Your task to perform on an android device: Check the news Image 0: 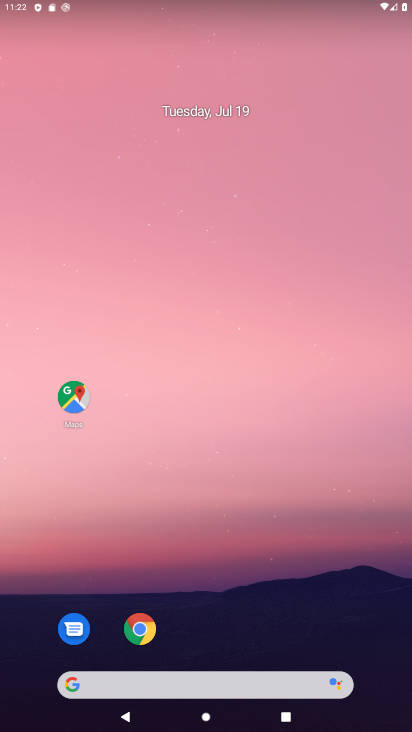
Step 0: drag from (269, 641) to (286, 10)
Your task to perform on an android device: Check the news Image 1: 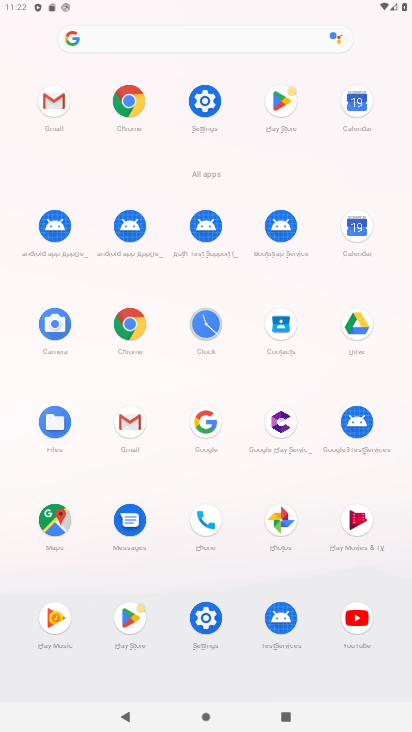
Step 1: click (135, 94)
Your task to perform on an android device: Check the news Image 2: 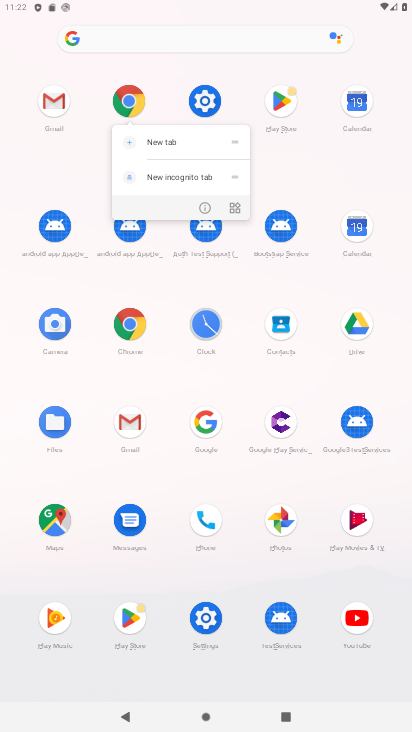
Step 2: click (135, 93)
Your task to perform on an android device: Check the news Image 3: 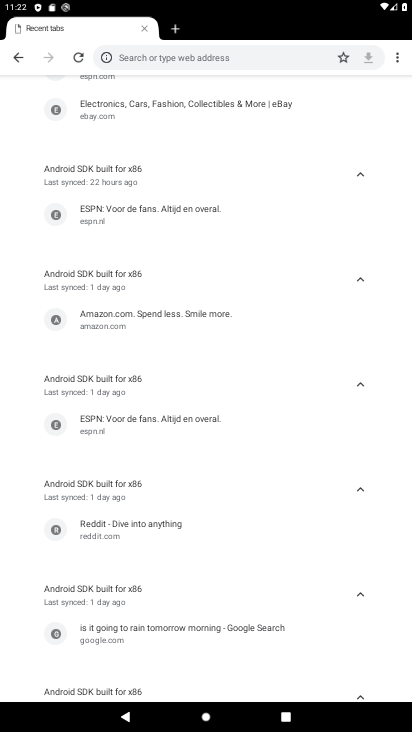
Step 3: click (14, 57)
Your task to perform on an android device: Check the news Image 4: 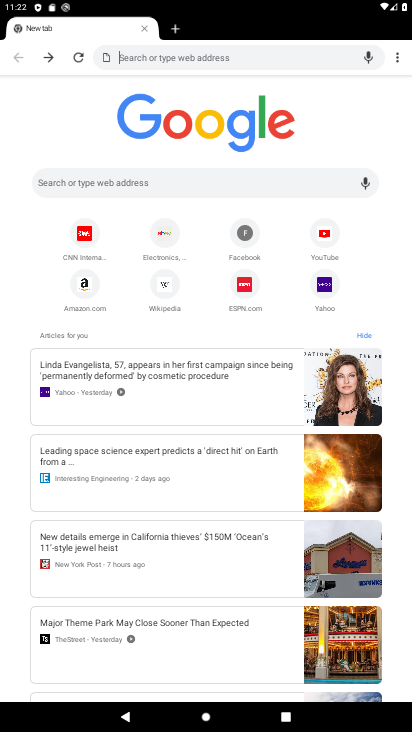
Step 4: task complete